Your task to perform on an android device: Go to location settings Image 0: 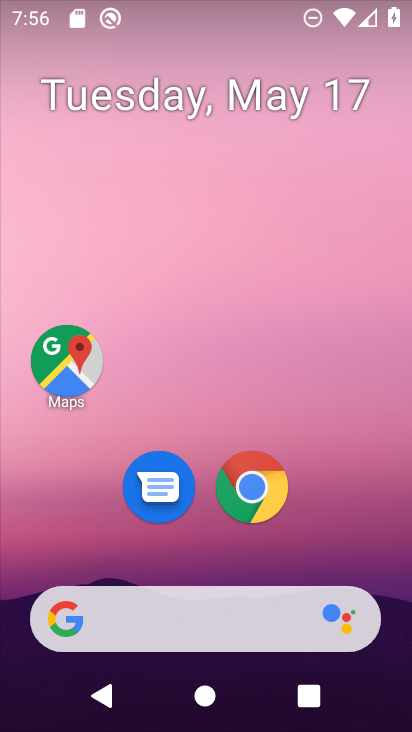
Step 0: drag from (246, 665) to (191, 336)
Your task to perform on an android device: Go to location settings Image 1: 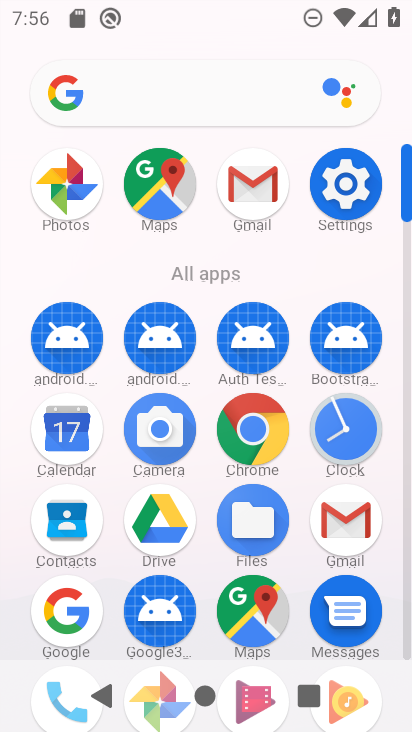
Step 1: click (348, 190)
Your task to perform on an android device: Go to location settings Image 2: 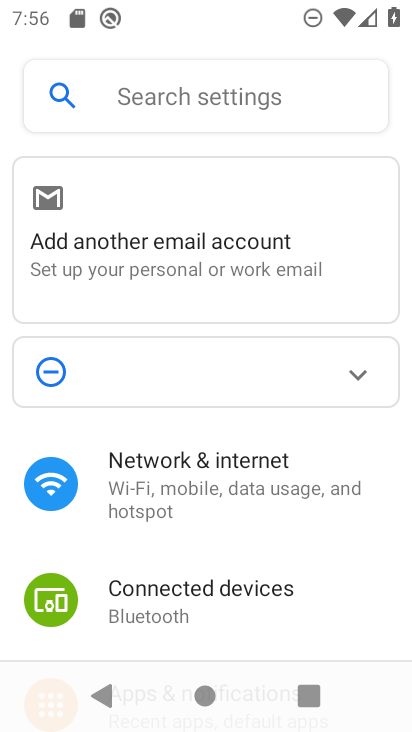
Step 2: click (182, 105)
Your task to perform on an android device: Go to location settings Image 3: 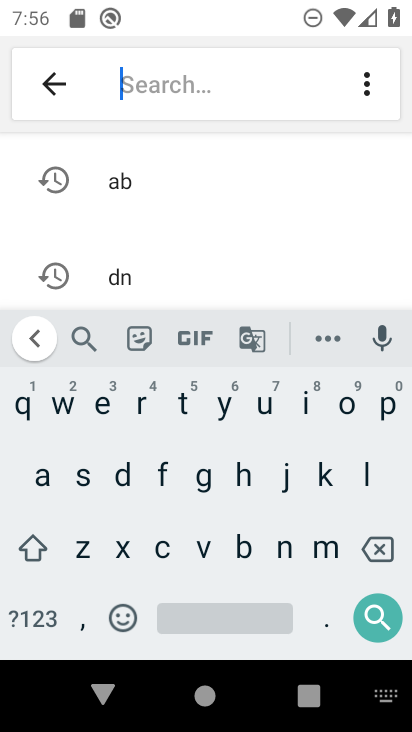
Step 3: click (370, 476)
Your task to perform on an android device: Go to location settings Image 4: 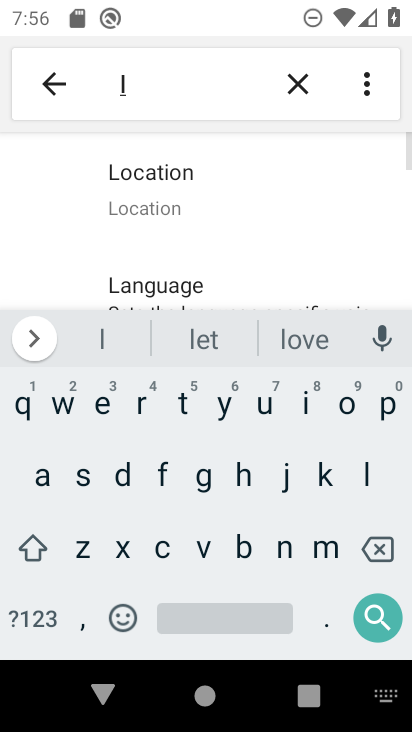
Step 4: click (193, 205)
Your task to perform on an android device: Go to location settings Image 5: 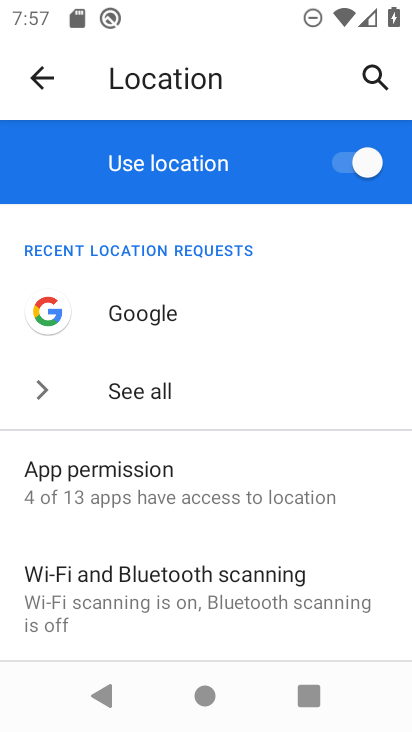
Step 5: drag from (216, 512) to (187, 283)
Your task to perform on an android device: Go to location settings Image 6: 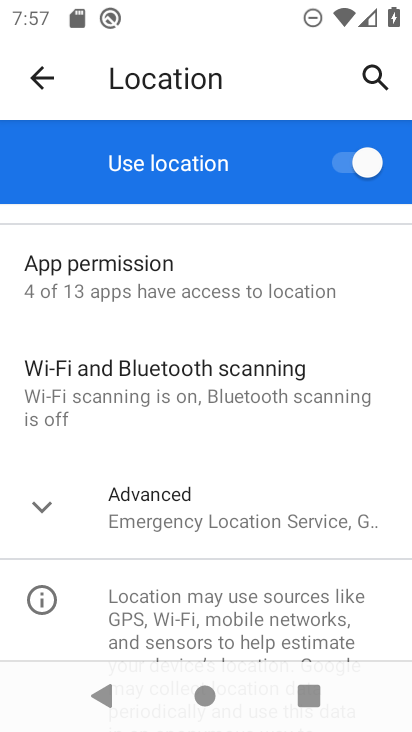
Step 6: click (94, 524)
Your task to perform on an android device: Go to location settings Image 7: 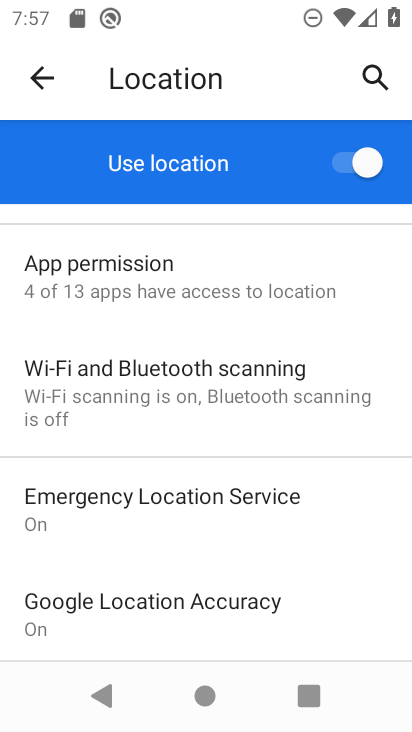
Step 7: task complete